Your task to perform on an android device: toggle improve location accuracy Image 0: 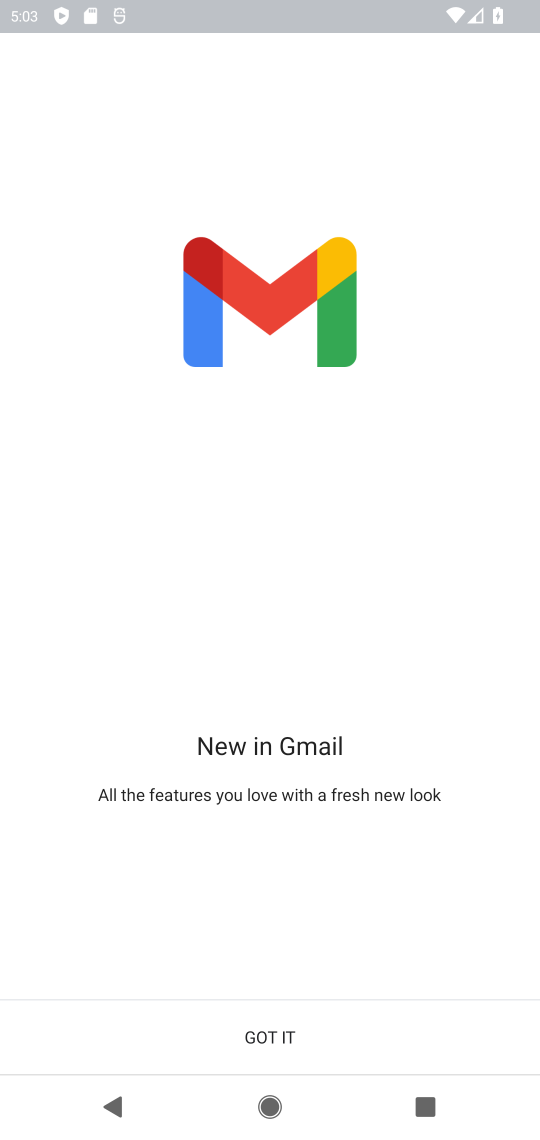
Step 0: press home button
Your task to perform on an android device: toggle improve location accuracy Image 1: 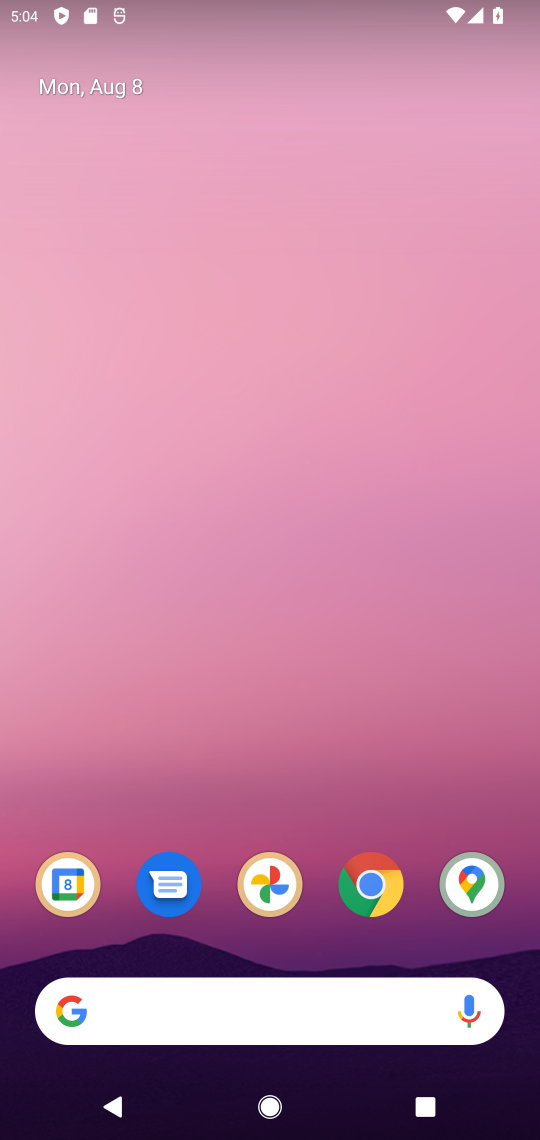
Step 1: drag from (324, 788) to (260, 55)
Your task to perform on an android device: toggle improve location accuracy Image 2: 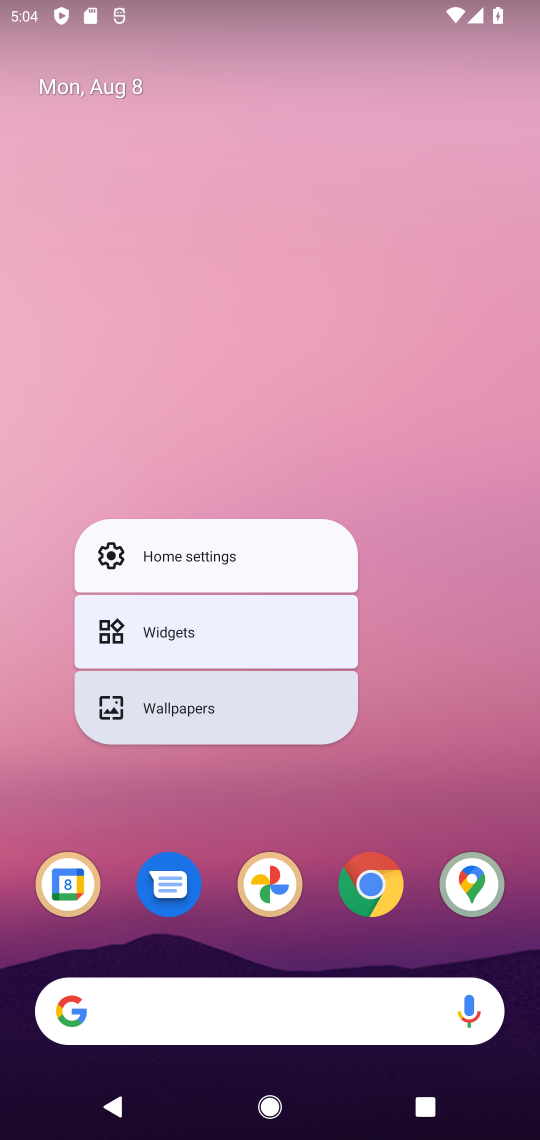
Step 2: drag from (414, 797) to (427, 228)
Your task to perform on an android device: toggle improve location accuracy Image 3: 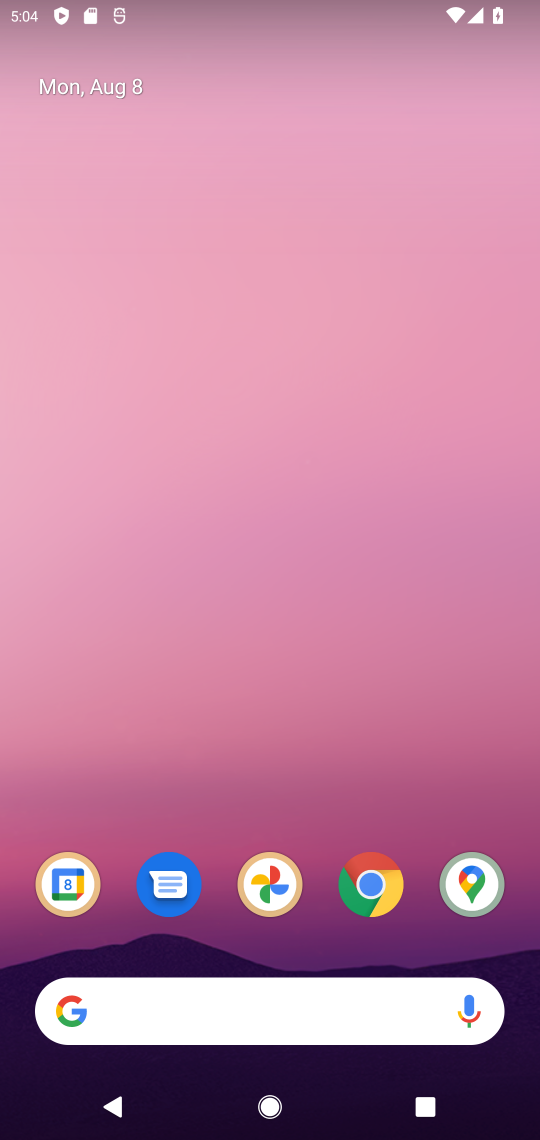
Step 3: drag from (435, 947) to (362, 265)
Your task to perform on an android device: toggle improve location accuracy Image 4: 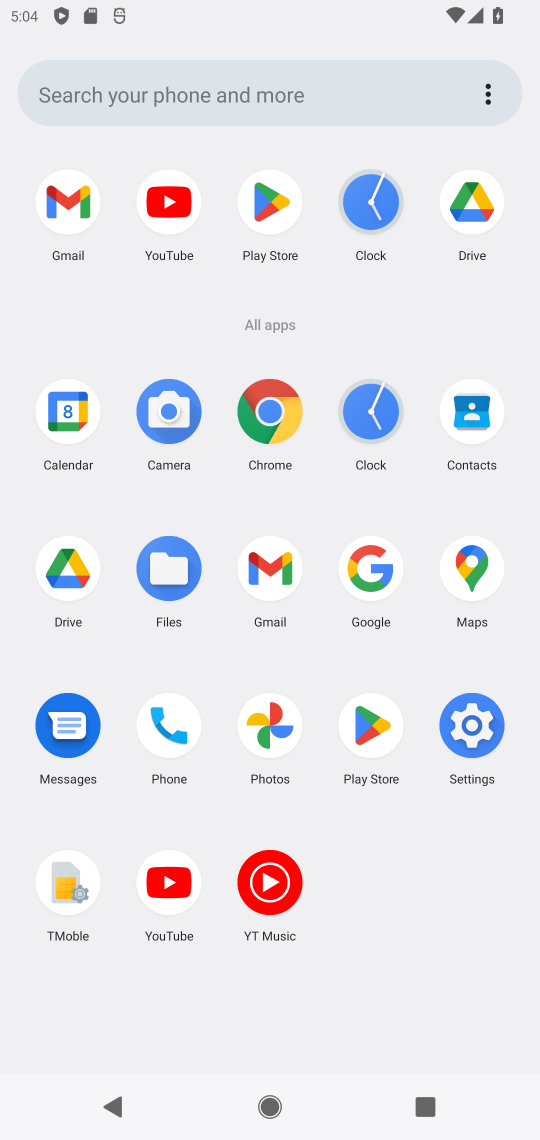
Step 4: click (474, 751)
Your task to perform on an android device: toggle improve location accuracy Image 5: 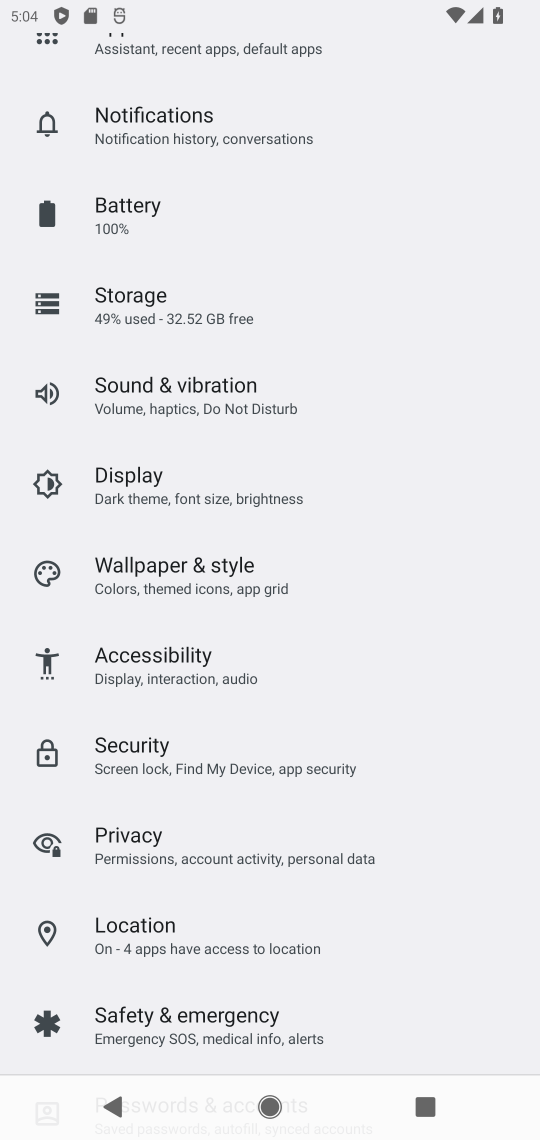
Step 5: click (190, 931)
Your task to perform on an android device: toggle improve location accuracy Image 6: 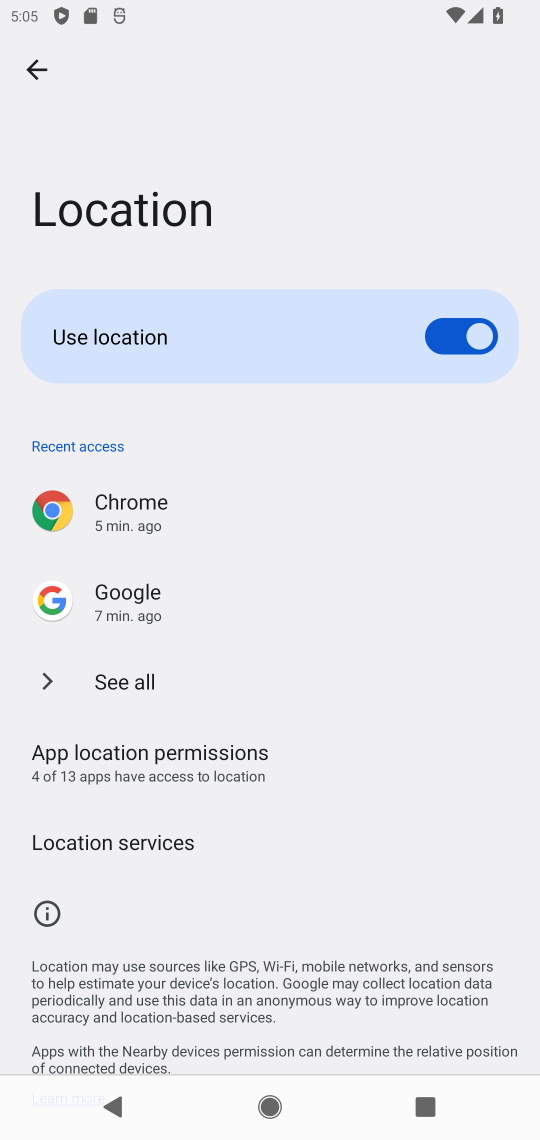
Step 6: click (193, 844)
Your task to perform on an android device: toggle improve location accuracy Image 7: 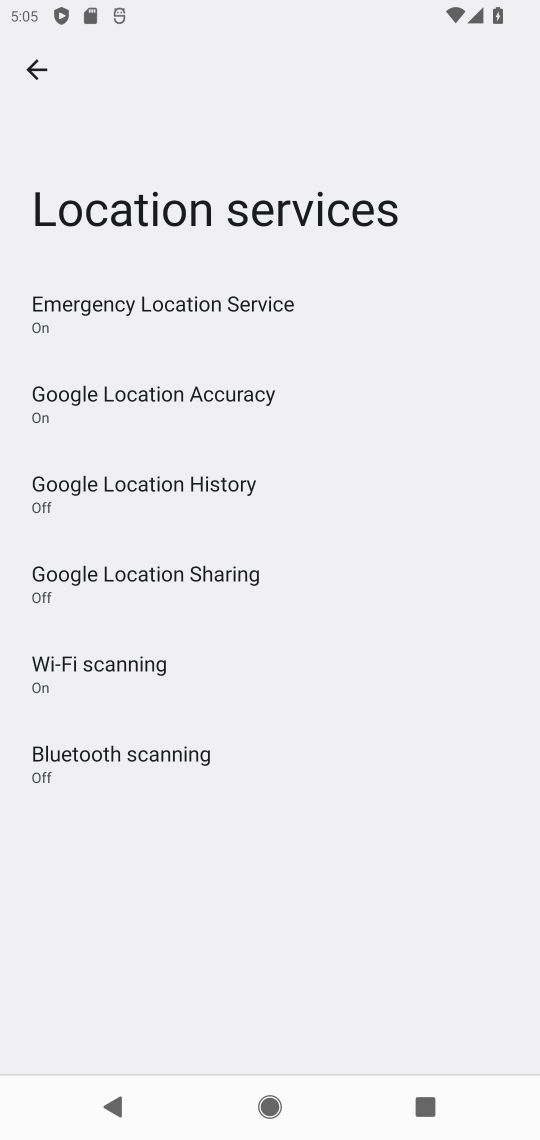
Step 7: click (329, 373)
Your task to perform on an android device: toggle improve location accuracy Image 8: 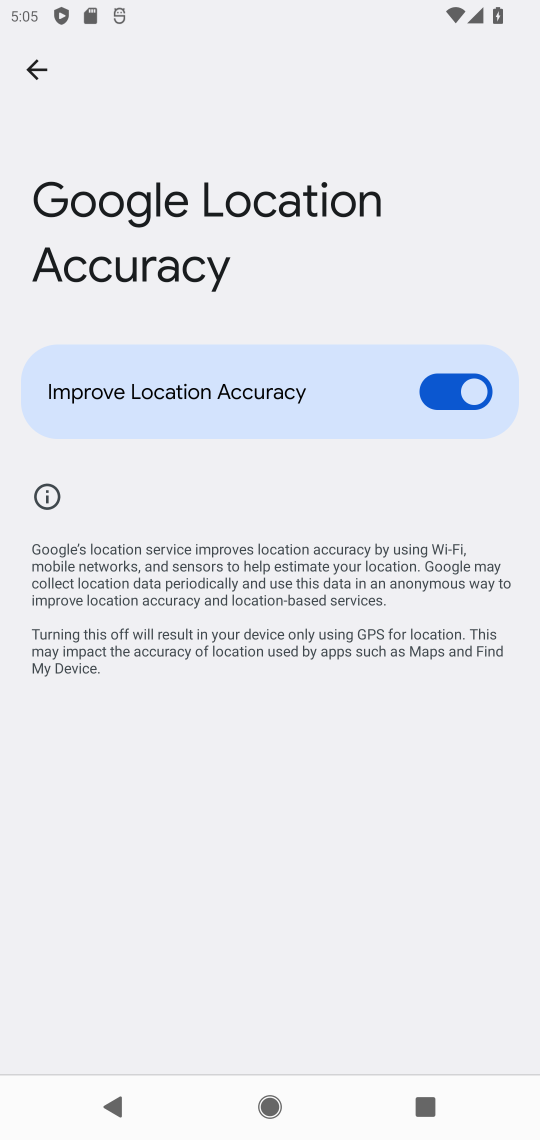
Step 8: click (443, 399)
Your task to perform on an android device: toggle improve location accuracy Image 9: 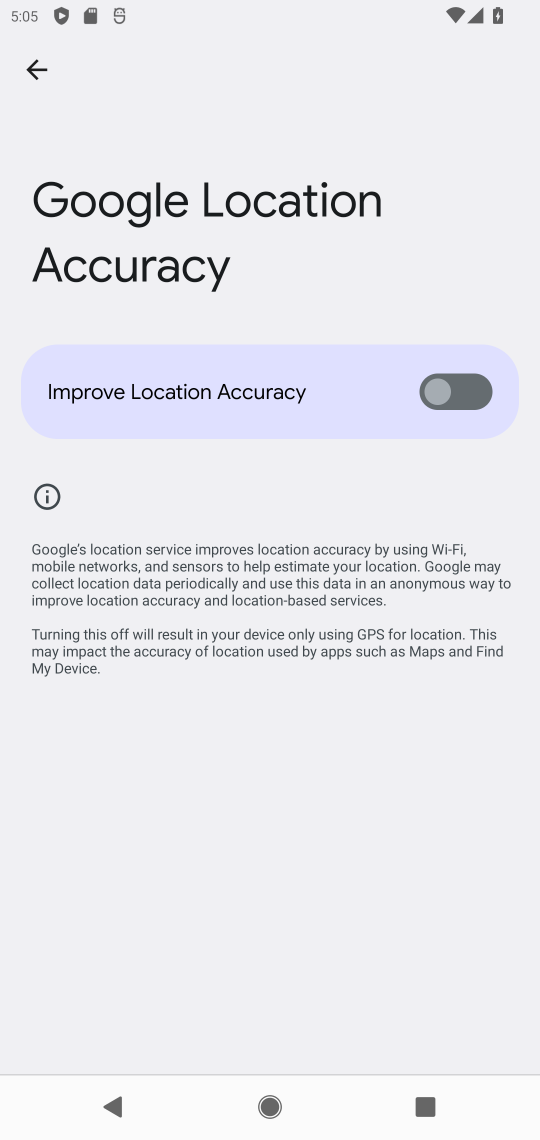
Step 9: task complete